Your task to perform on an android device: What's on my calendar today? Image 0: 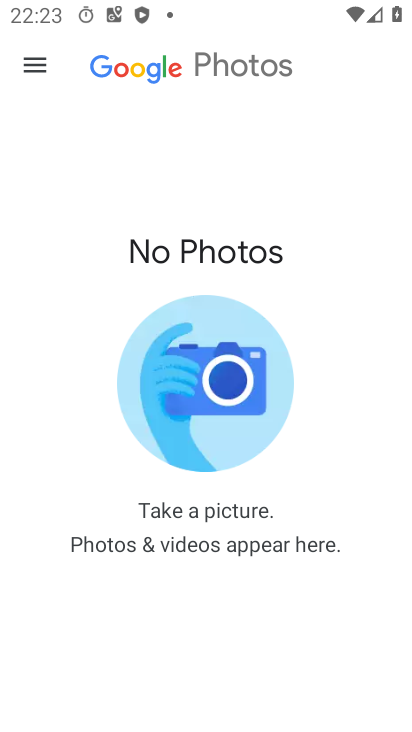
Step 0: press home button
Your task to perform on an android device: What's on my calendar today? Image 1: 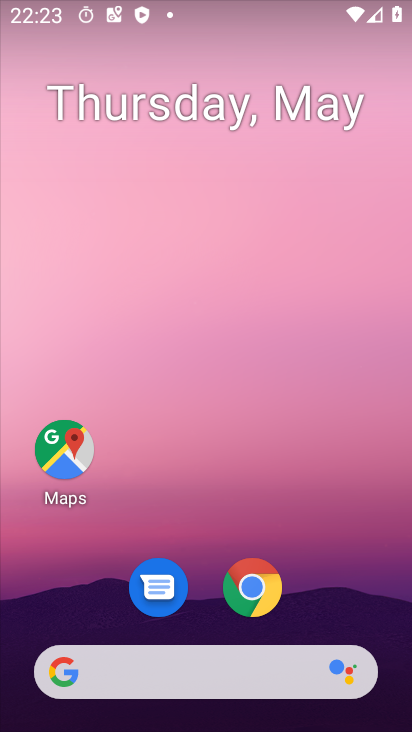
Step 1: drag from (335, 631) to (322, 13)
Your task to perform on an android device: What's on my calendar today? Image 2: 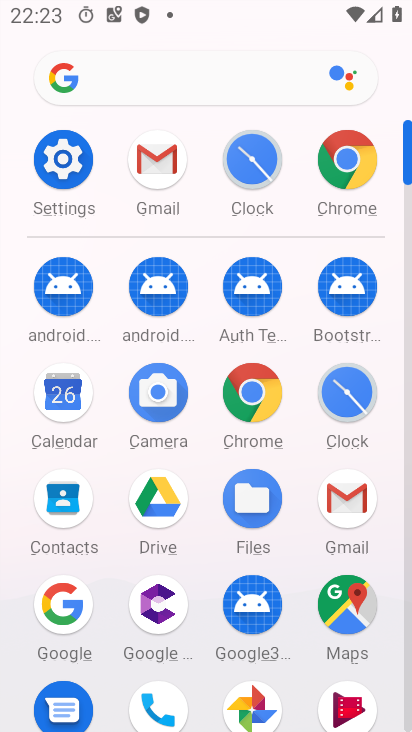
Step 2: click (54, 402)
Your task to perform on an android device: What's on my calendar today? Image 3: 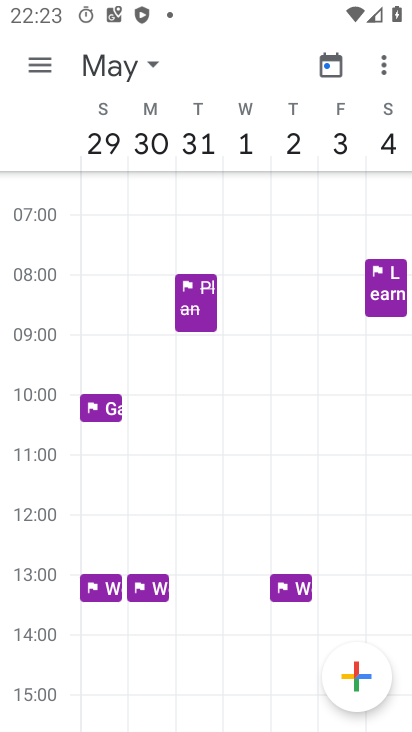
Step 3: click (33, 60)
Your task to perform on an android device: What's on my calendar today? Image 4: 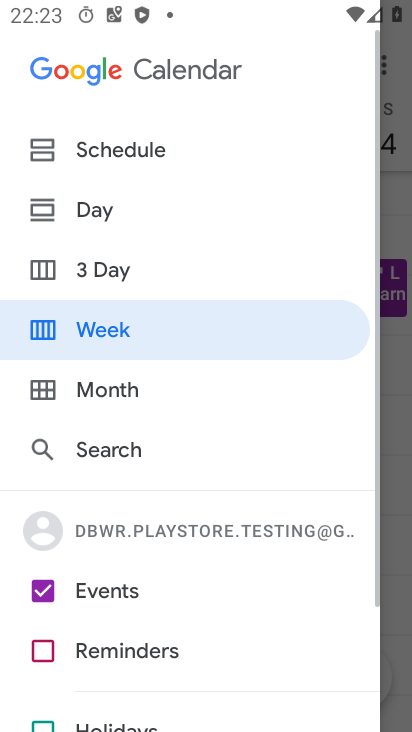
Step 4: click (63, 138)
Your task to perform on an android device: What's on my calendar today? Image 5: 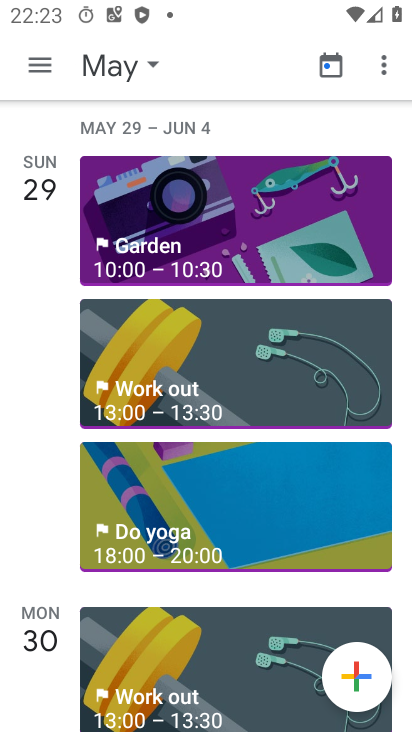
Step 5: drag from (163, 211) to (187, 730)
Your task to perform on an android device: What's on my calendar today? Image 6: 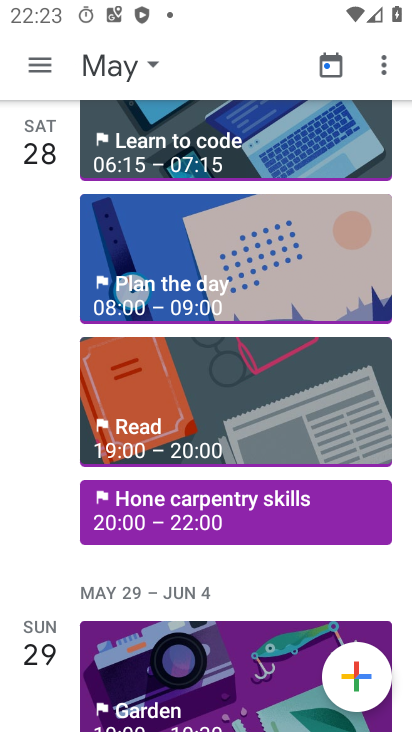
Step 6: drag from (151, 204) to (167, 727)
Your task to perform on an android device: What's on my calendar today? Image 7: 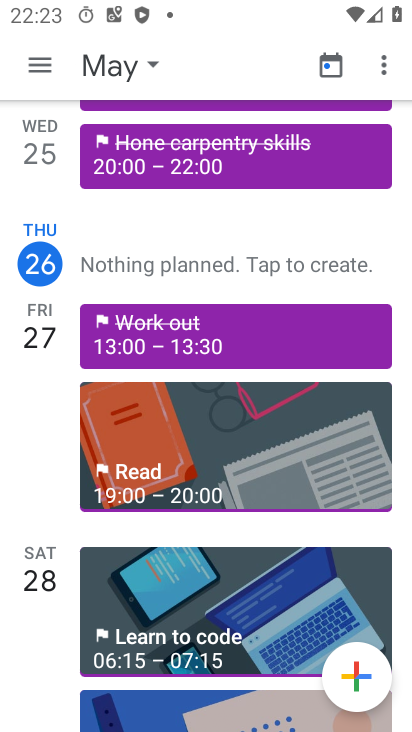
Step 7: drag from (132, 212) to (149, 354)
Your task to perform on an android device: What's on my calendar today? Image 8: 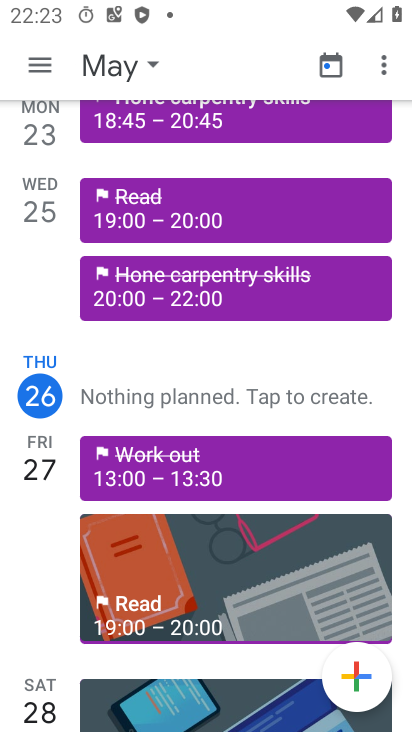
Step 8: click (152, 404)
Your task to perform on an android device: What's on my calendar today? Image 9: 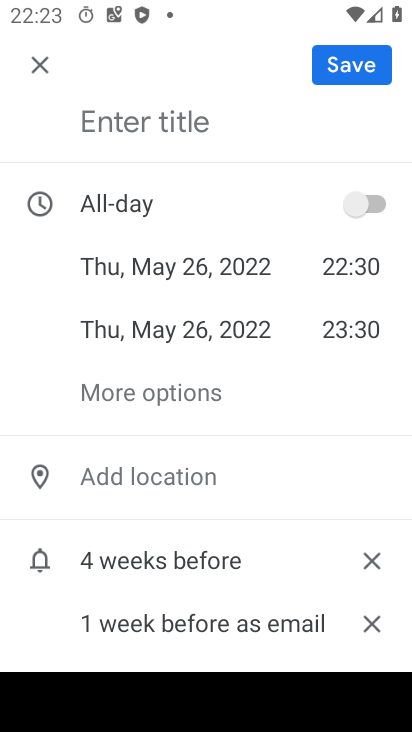
Step 9: task complete